Your task to perform on an android device: turn off airplane mode Image 0: 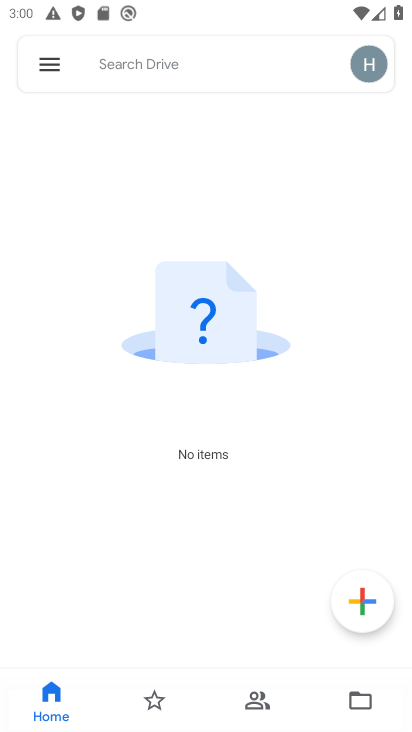
Step 0: press home button
Your task to perform on an android device: turn off airplane mode Image 1: 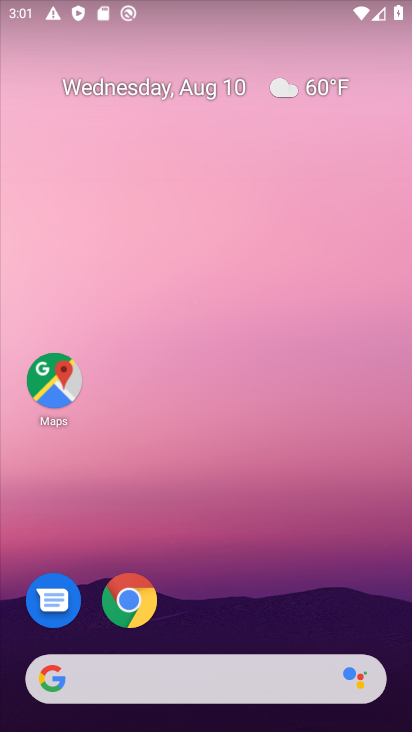
Step 1: task complete